Your task to perform on an android device: turn on priority inbox in the gmail app Image 0: 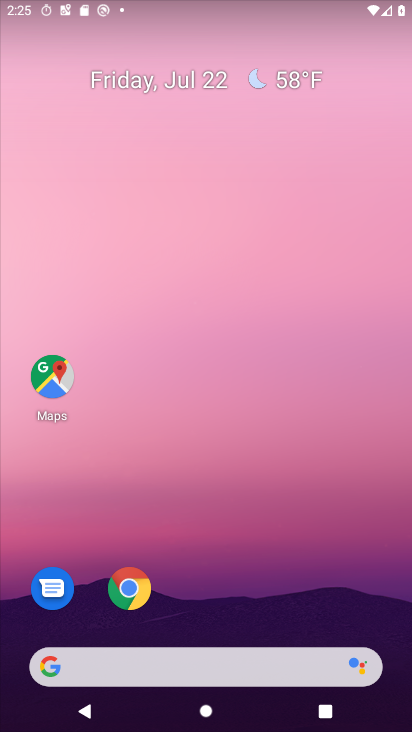
Step 0: press home button
Your task to perform on an android device: turn on priority inbox in the gmail app Image 1: 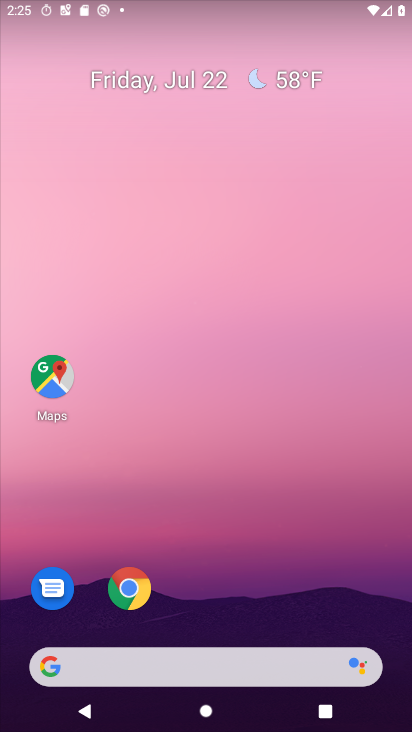
Step 1: drag from (272, 555) to (173, 2)
Your task to perform on an android device: turn on priority inbox in the gmail app Image 2: 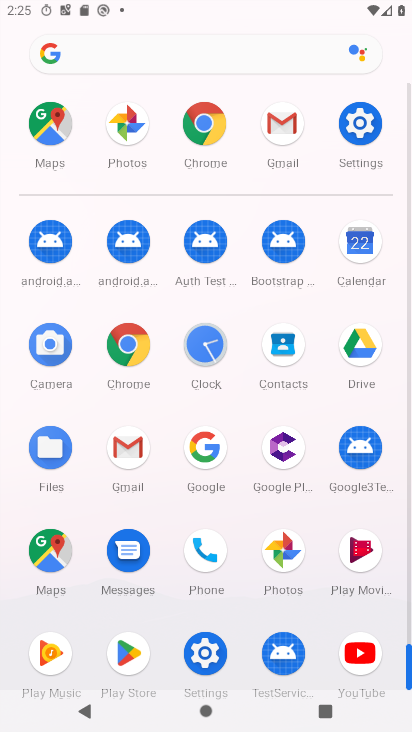
Step 2: click (142, 449)
Your task to perform on an android device: turn on priority inbox in the gmail app Image 3: 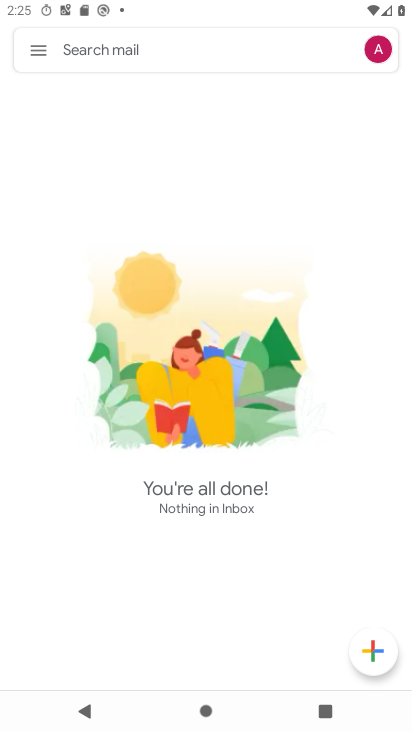
Step 3: click (45, 47)
Your task to perform on an android device: turn on priority inbox in the gmail app Image 4: 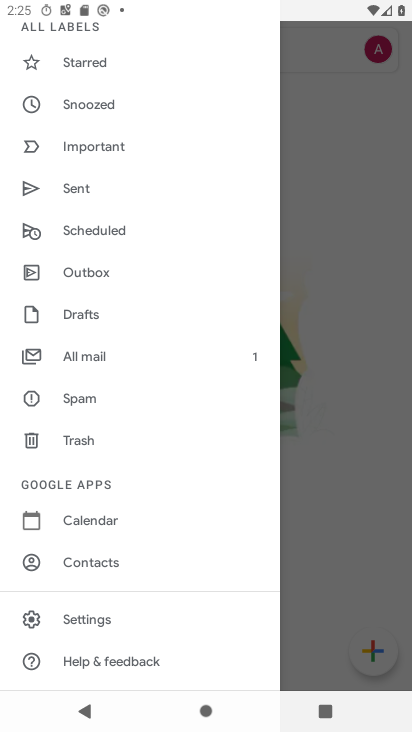
Step 4: click (55, 622)
Your task to perform on an android device: turn on priority inbox in the gmail app Image 5: 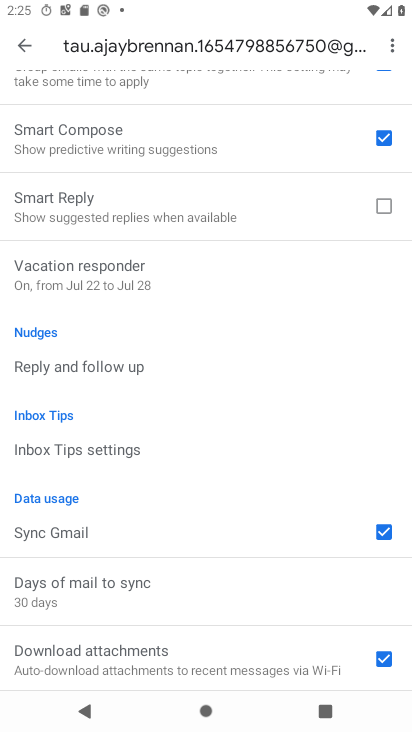
Step 5: drag from (78, 144) to (17, 730)
Your task to perform on an android device: turn on priority inbox in the gmail app Image 6: 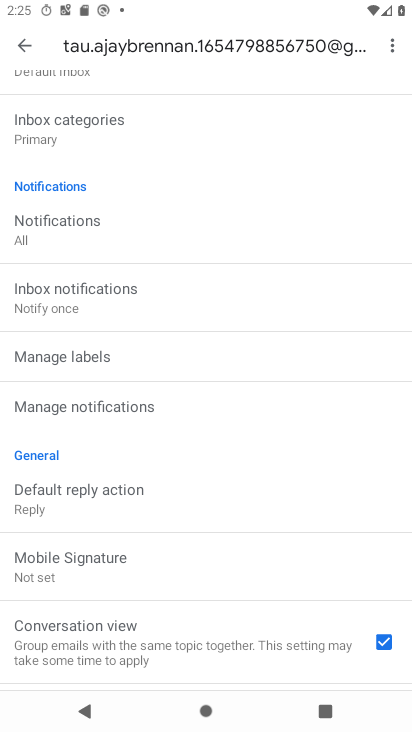
Step 6: drag from (70, 160) to (164, 695)
Your task to perform on an android device: turn on priority inbox in the gmail app Image 7: 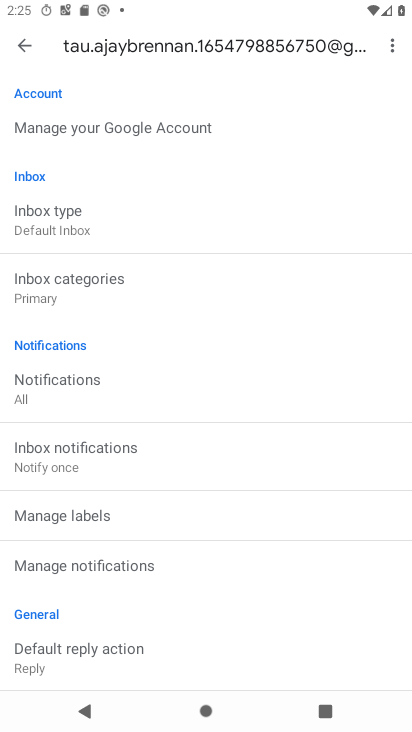
Step 7: click (56, 230)
Your task to perform on an android device: turn on priority inbox in the gmail app Image 8: 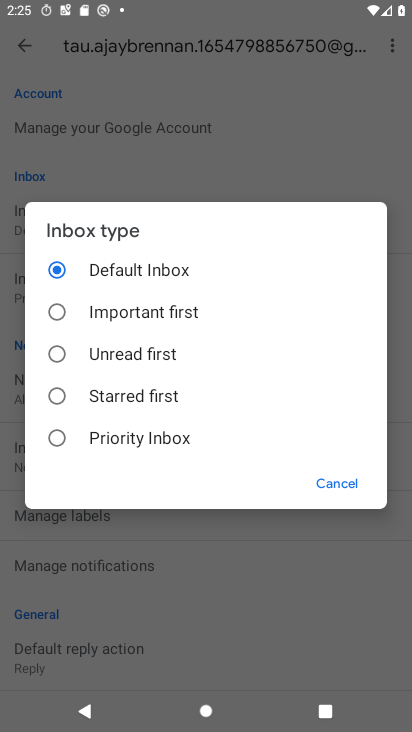
Step 8: click (64, 436)
Your task to perform on an android device: turn on priority inbox in the gmail app Image 9: 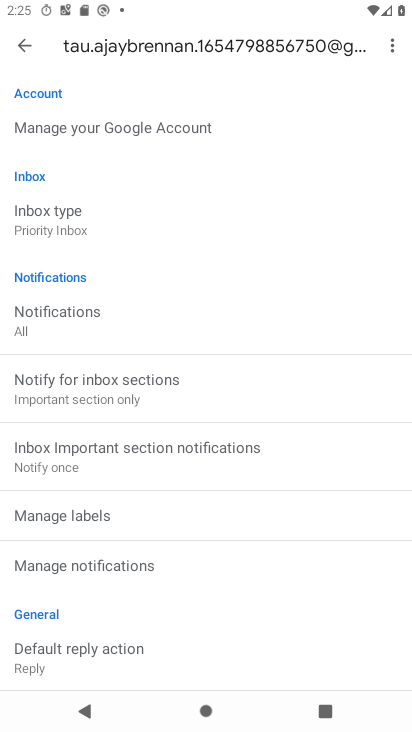
Step 9: task complete